Your task to perform on an android device: Open Android settings Image 0: 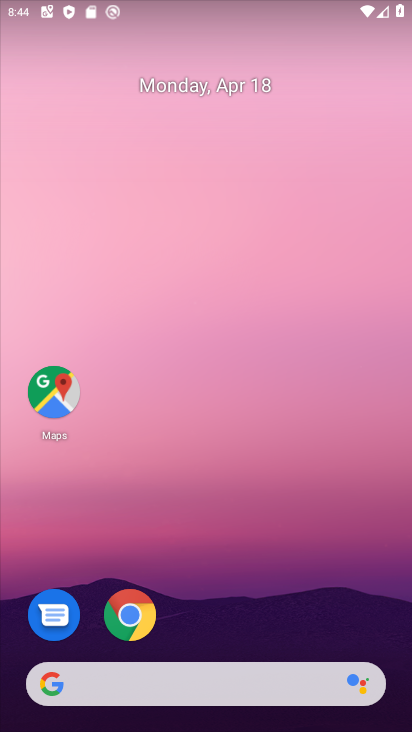
Step 0: drag from (359, 593) to (386, 104)
Your task to perform on an android device: Open Android settings Image 1: 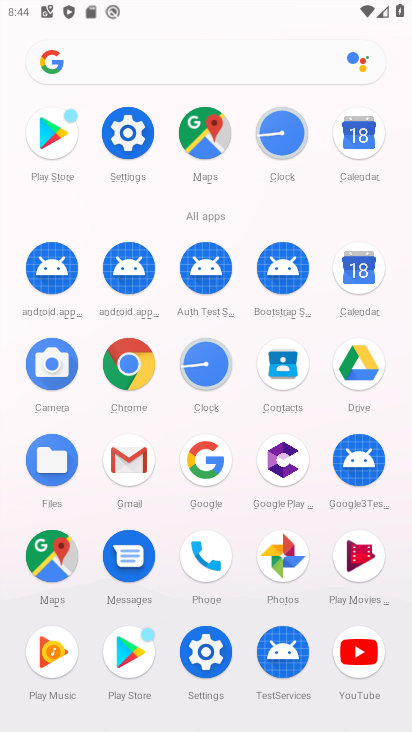
Step 1: click (218, 647)
Your task to perform on an android device: Open Android settings Image 2: 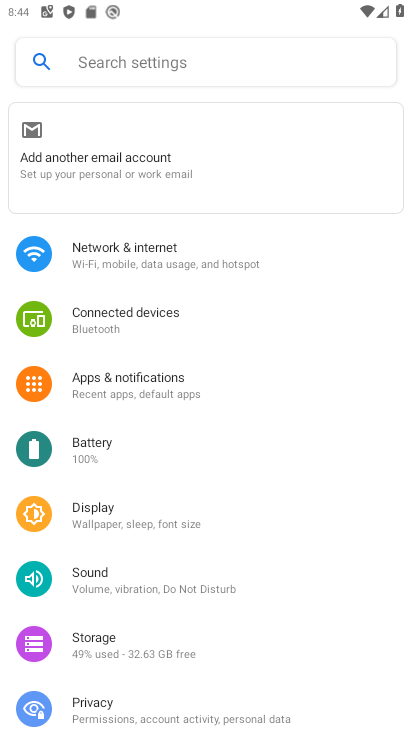
Step 2: drag from (277, 644) to (331, 262)
Your task to perform on an android device: Open Android settings Image 3: 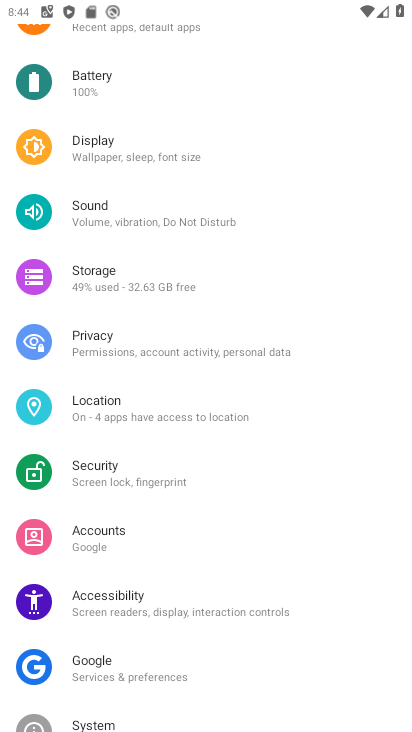
Step 3: drag from (270, 645) to (311, 151)
Your task to perform on an android device: Open Android settings Image 4: 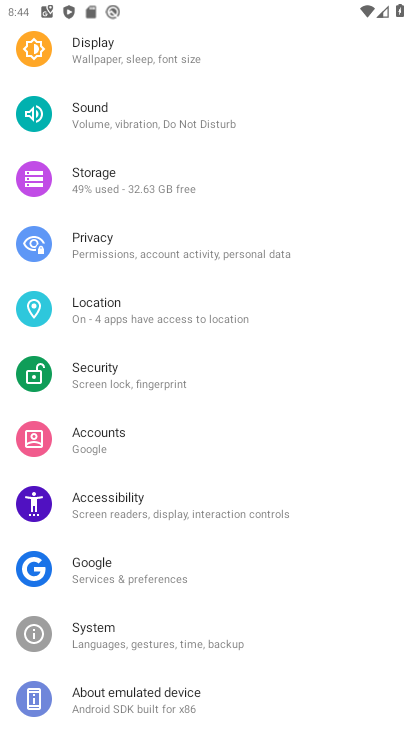
Step 4: click (185, 688)
Your task to perform on an android device: Open Android settings Image 5: 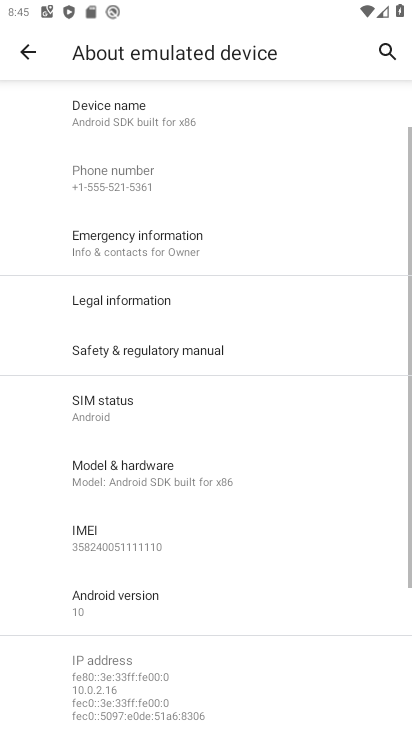
Step 5: task complete